Your task to perform on an android device: Open Google Chrome Image 0: 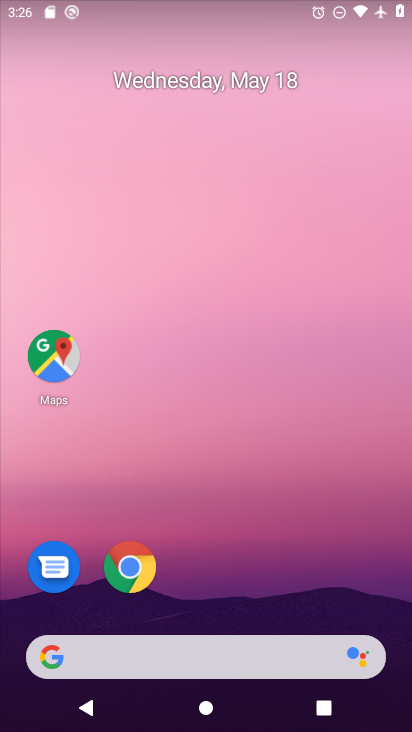
Step 0: drag from (193, 592) to (231, 129)
Your task to perform on an android device: Open Google Chrome Image 1: 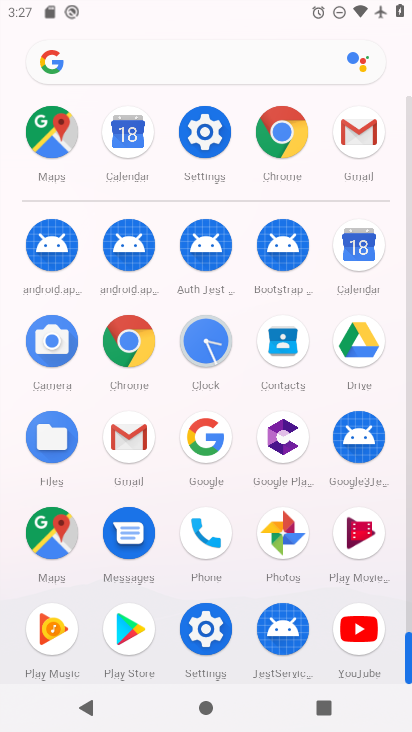
Step 1: click (204, 438)
Your task to perform on an android device: Open Google Chrome Image 2: 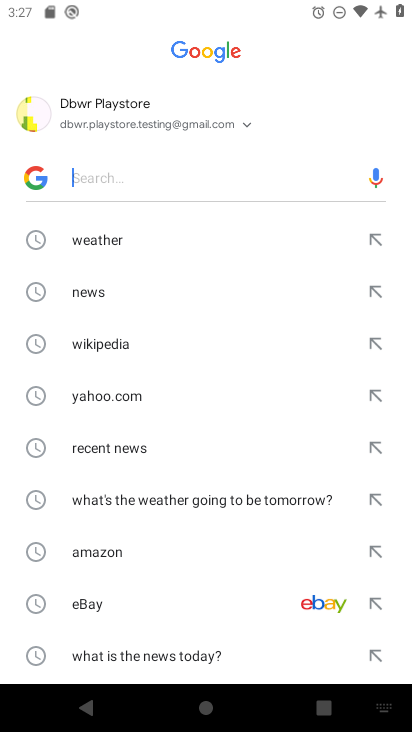
Step 2: task complete